Your task to perform on an android device: open app "McDonald's" (install if not already installed) Image 0: 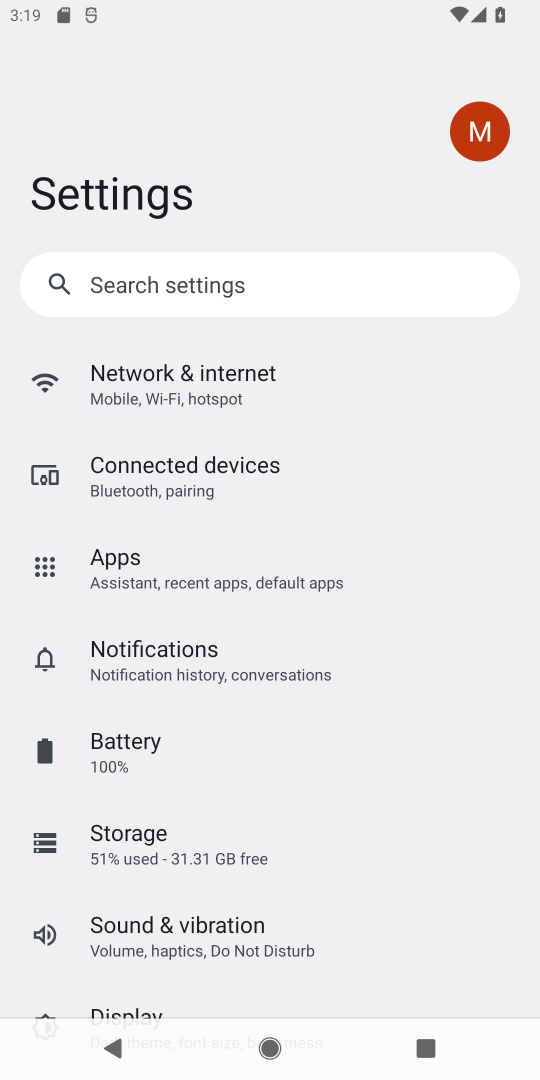
Step 0: press home button
Your task to perform on an android device: open app "McDonald's" (install if not already installed) Image 1: 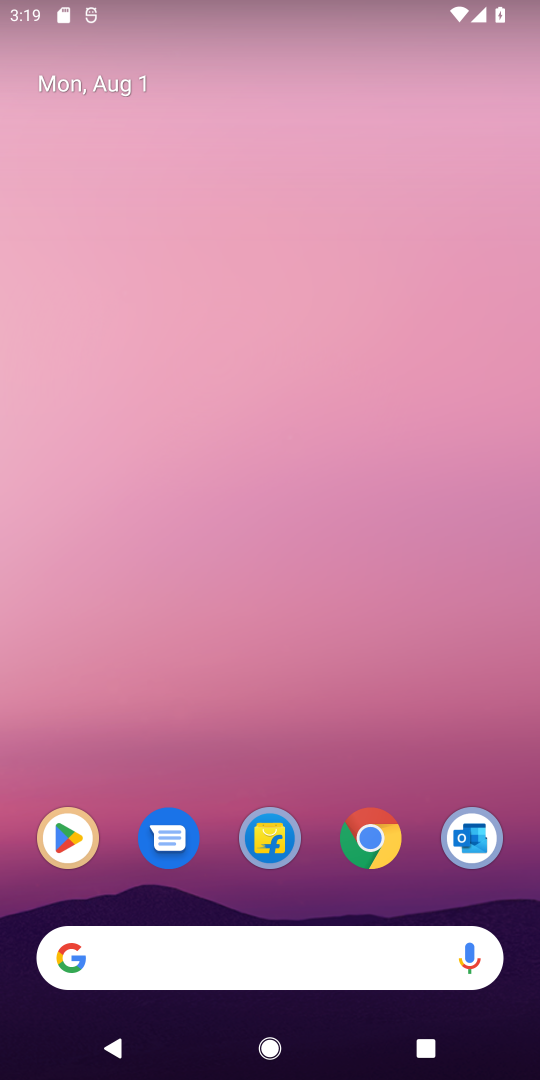
Step 1: click (84, 852)
Your task to perform on an android device: open app "McDonald's" (install if not already installed) Image 2: 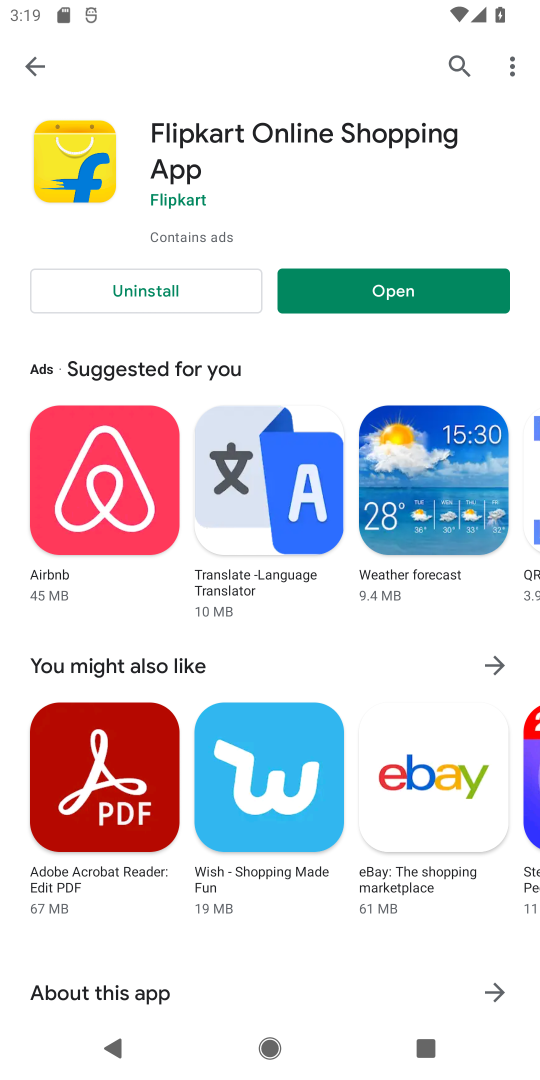
Step 2: click (451, 73)
Your task to perform on an android device: open app "McDonald's" (install if not already installed) Image 3: 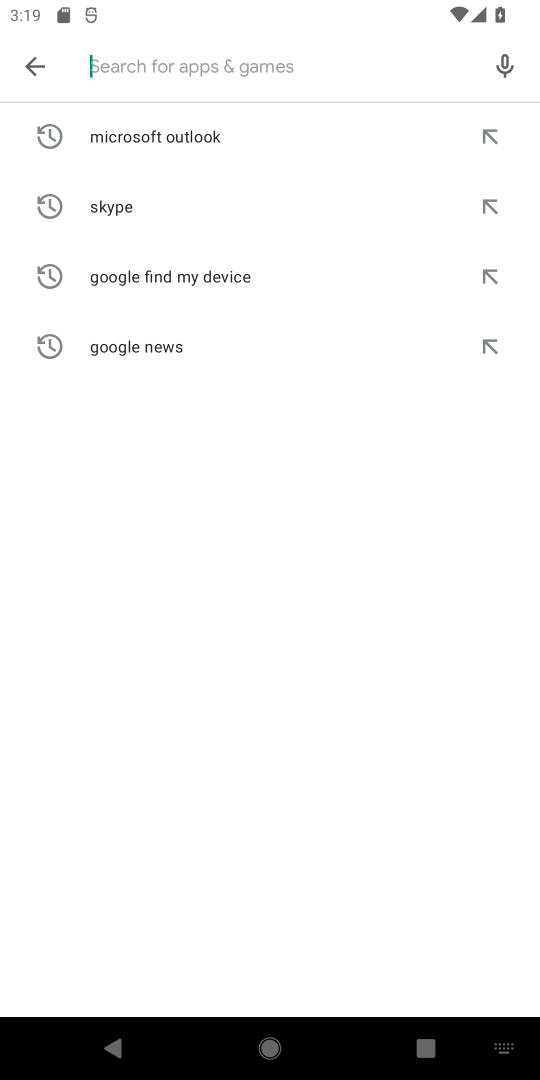
Step 3: click (250, 63)
Your task to perform on an android device: open app "McDonald's" (install if not already installed) Image 4: 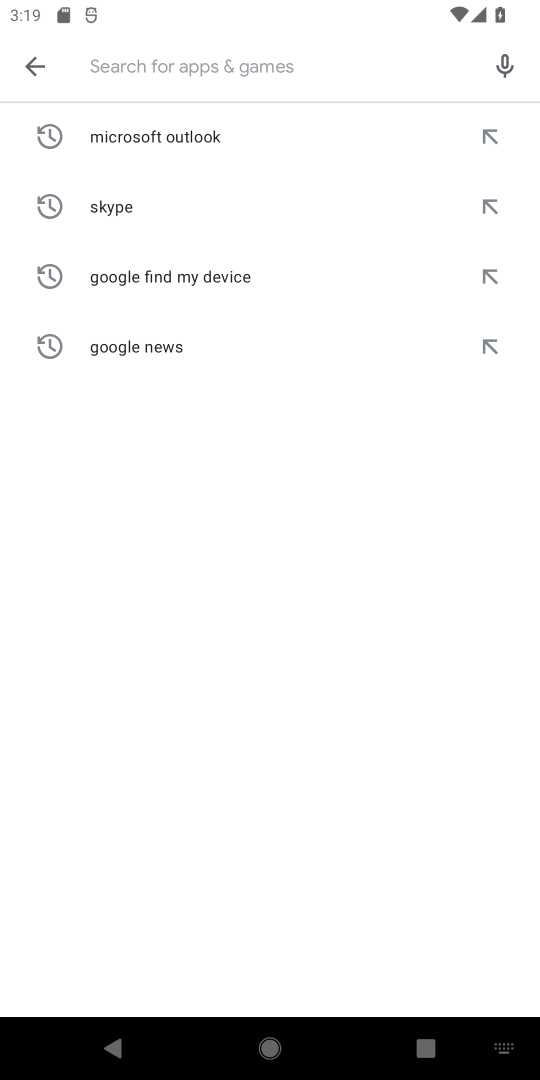
Step 4: type "McDonald's"
Your task to perform on an android device: open app "McDonald's" (install if not already installed) Image 5: 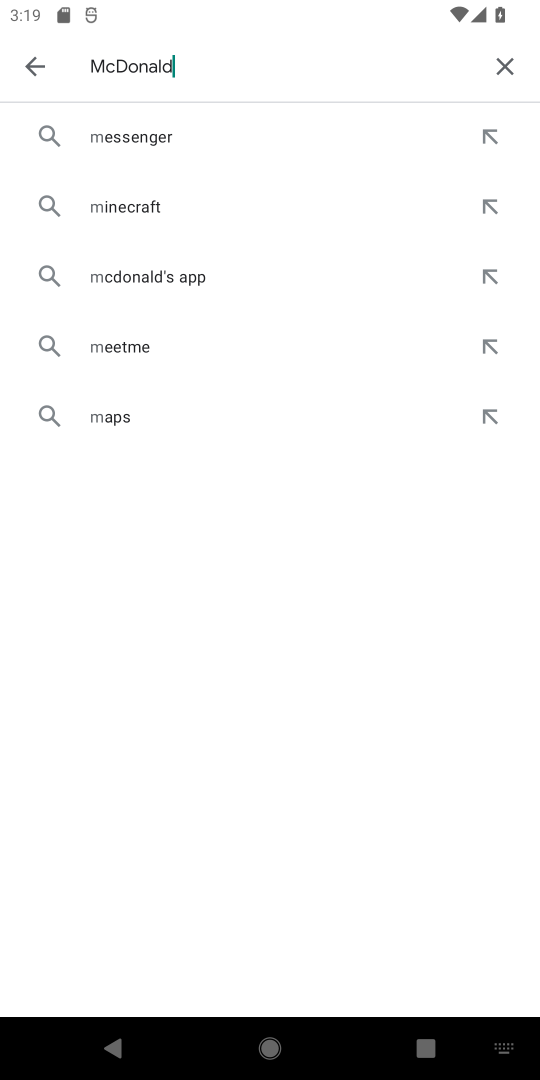
Step 5: type ""
Your task to perform on an android device: open app "McDonald's" (install if not already installed) Image 6: 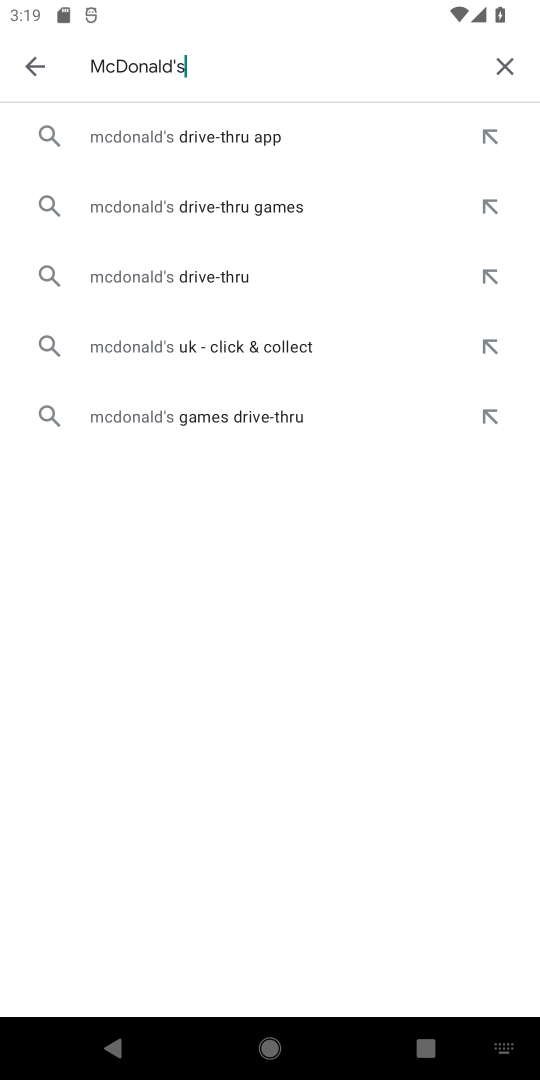
Step 6: click (251, 131)
Your task to perform on an android device: open app "McDonald's" (install if not already installed) Image 7: 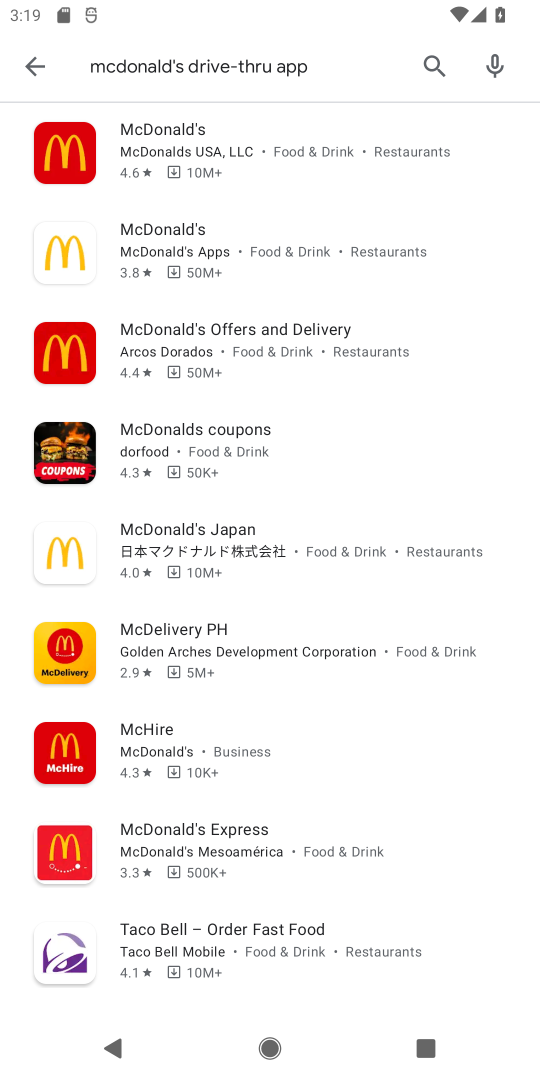
Step 7: click (251, 131)
Your task to perform on an android device: open app "McDonald's" (install if not already installed) Image 8: 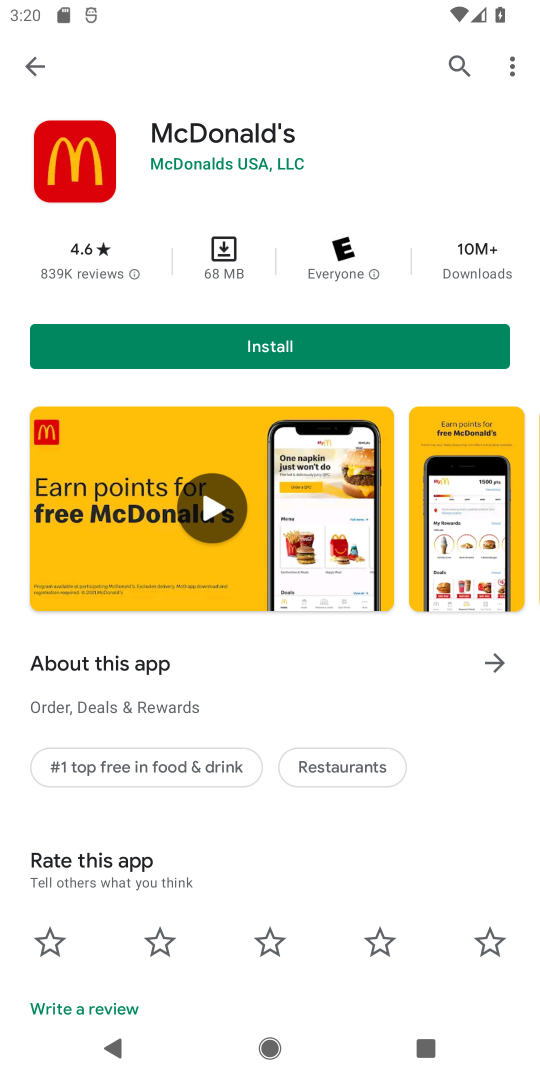
Step 8: click (303, 332)
Your task to perform on an android device: open app "McDonald's" (install if not already installed) Image 9: 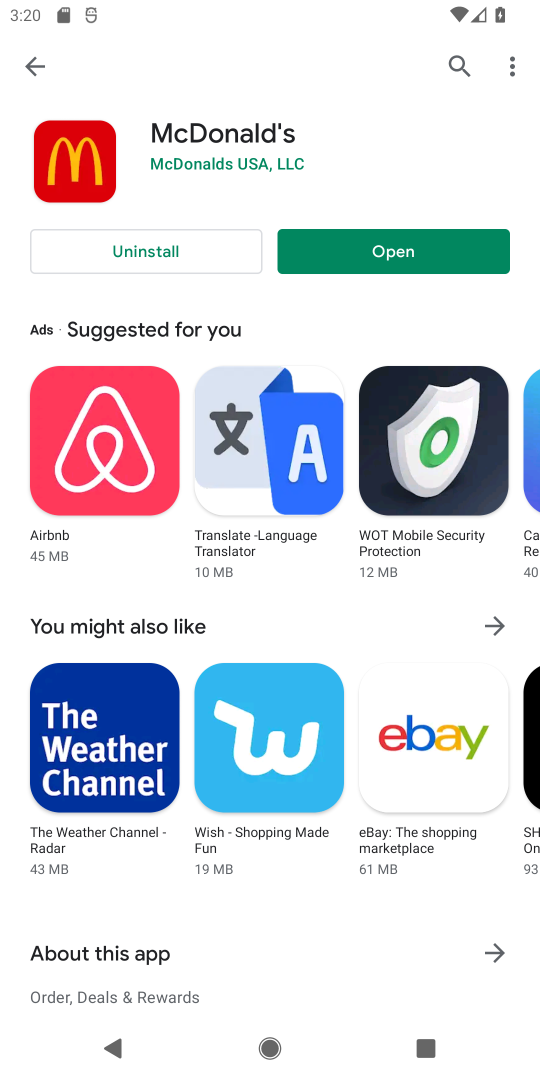
Step 9: click (413, 244)
Your task to perform on an android device: open app "McDonald's" (install if not already installed) Image 10: 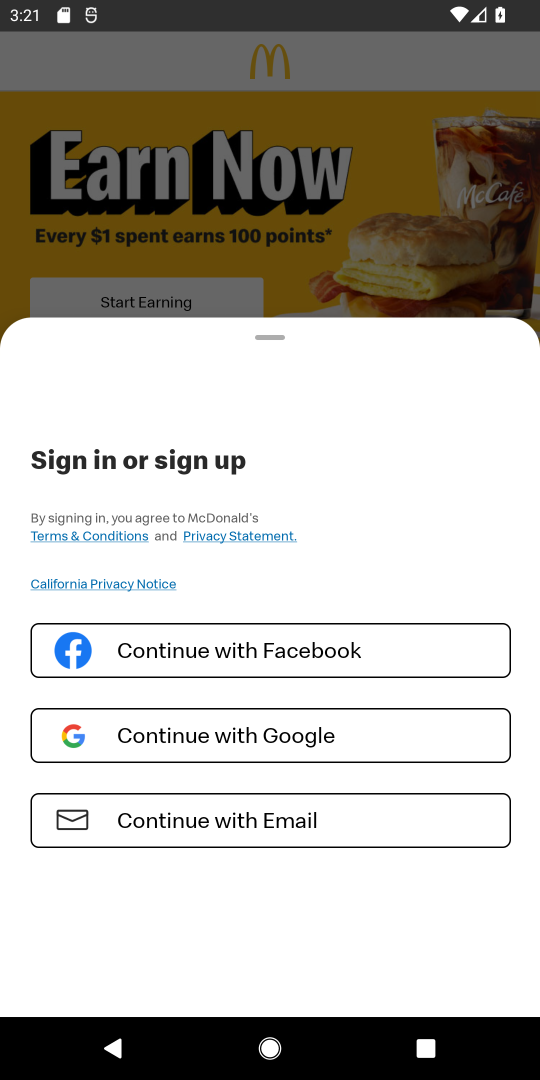
Step 10: task complete